Your task to perform on an android device: check google app version Image 0: 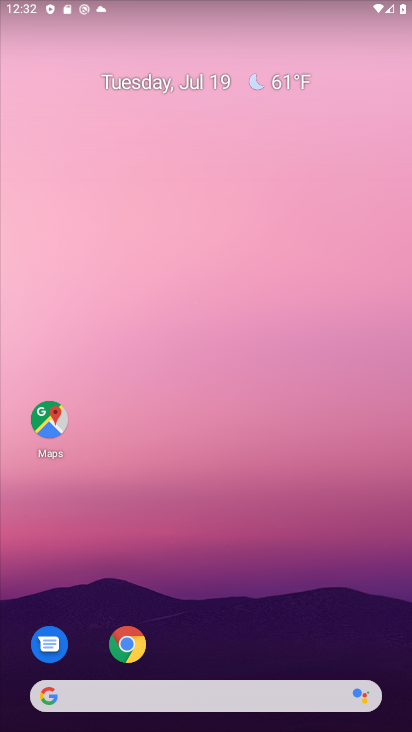
Step 0: drag from (338, 630) to (253, 176)
Your task to perform on an android device: check google app version Image 1: 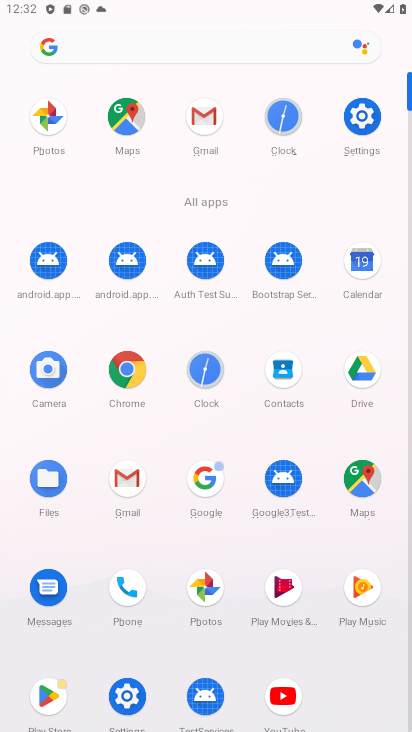
Step 1: click (137, 366)
Your task to perform on an android device: check google app version Image 2: 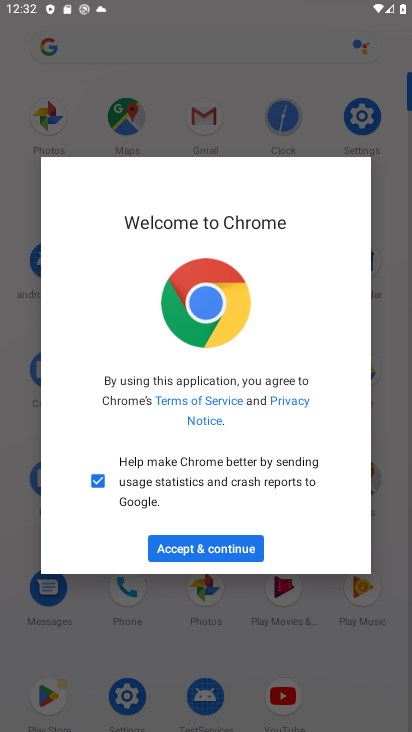
Step 2: click (228, 542)
Your task to perform on an android device: check google app version Image 3: 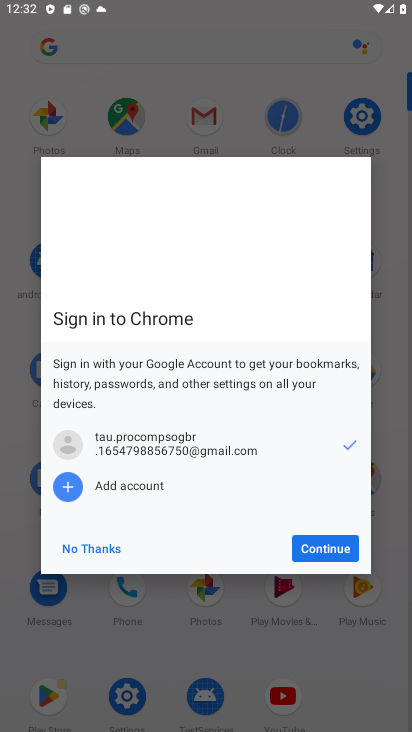
Step 3: click (316, 554)
Your task to perform on an android device: check google app version Image 4: 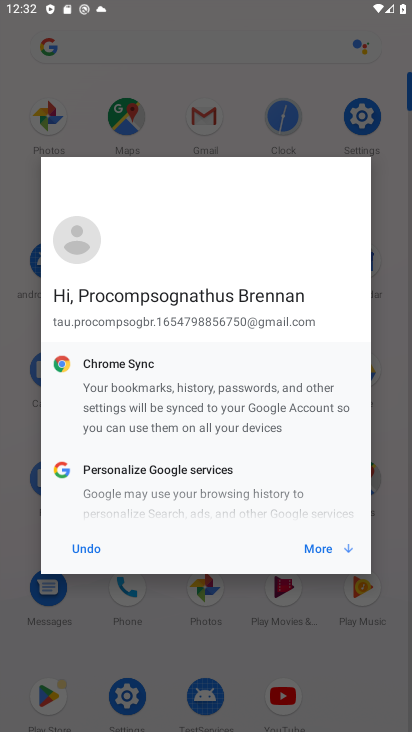
Step 4: click (316, 554)
Your task to perform on an android device: check google app version Image 5: 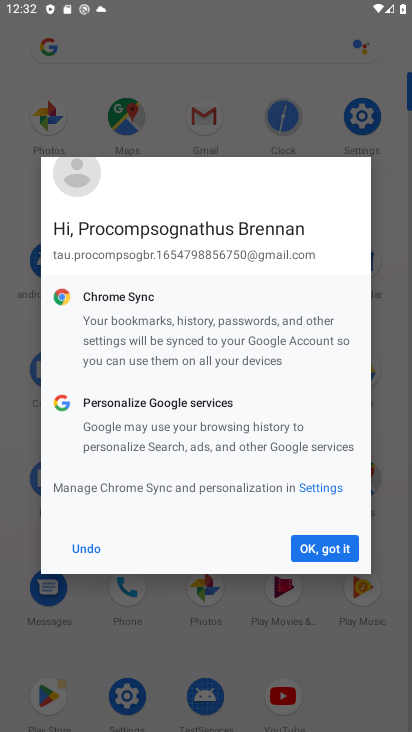
Step 5: click (346, 553)
Your task to perform on an android device: check google app version Image 6: 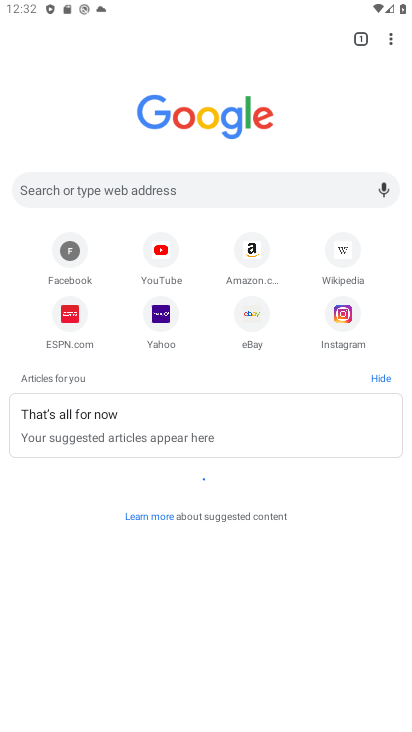
Step 6: click (391, 44)
Your task to perform on an android device: check google app version Image 7: 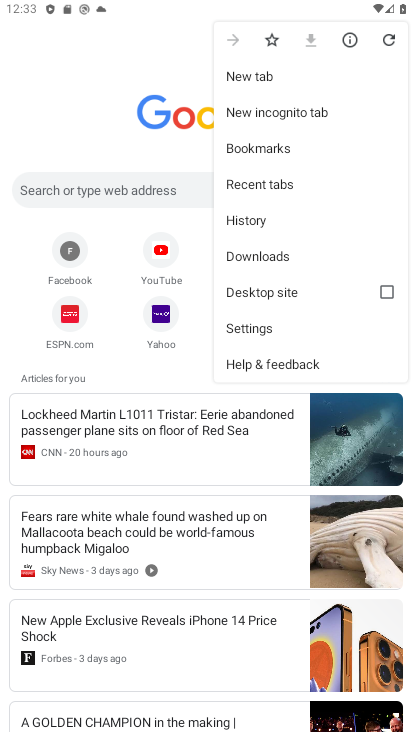
Step 7: click (279, 359)
Your task to perform on an android device: check google app version Image 8: 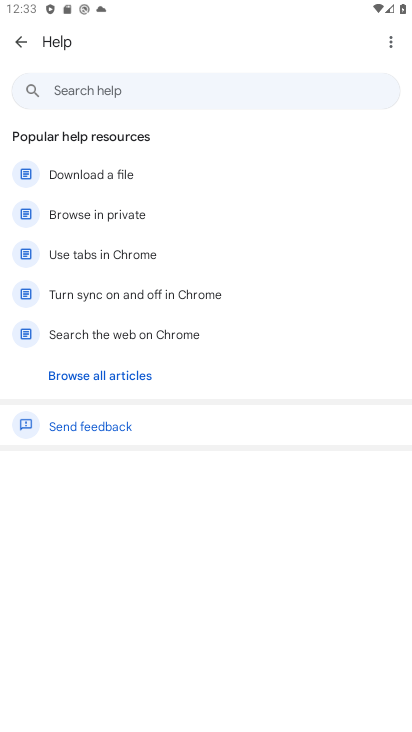
Step 8: click (392, 35)
Your task to perform on an android device: check google app version Image 9: 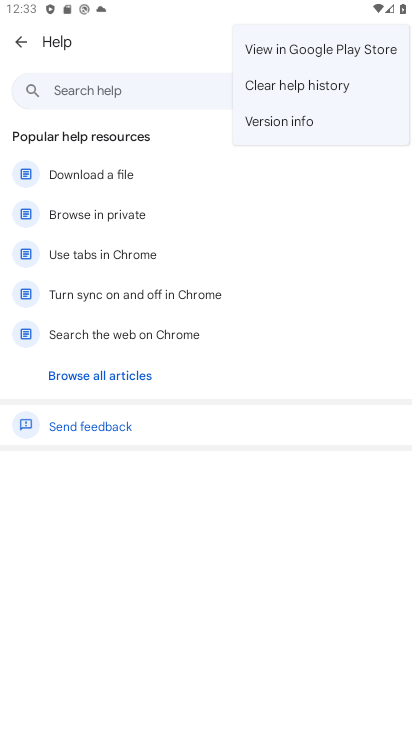
Step 9: click (298, 126)
Your task to perform on an android device: check google app version Image 10: 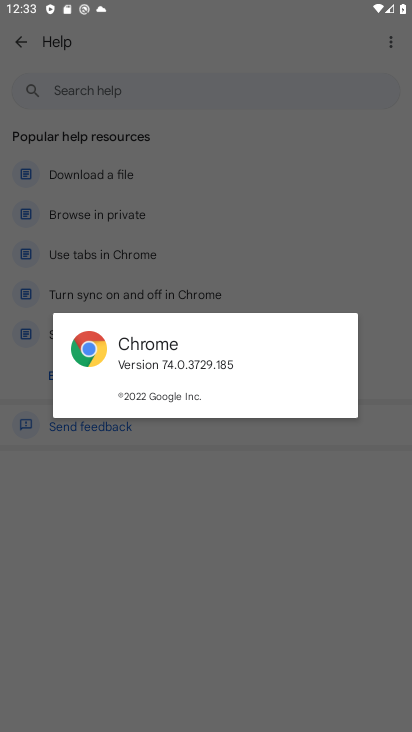
Step 10: task complete